Your task to perform on an android device: Go to Wikipedia Image 0: 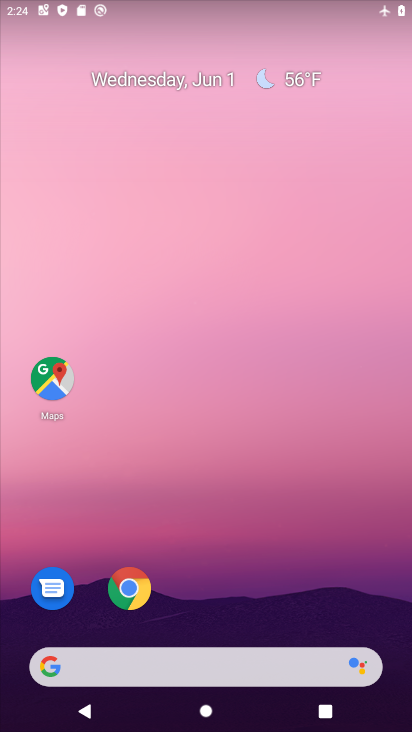
Step 0: click (133, 595)
Your task to perform on an android device: Go to Wikipedia Image 1: 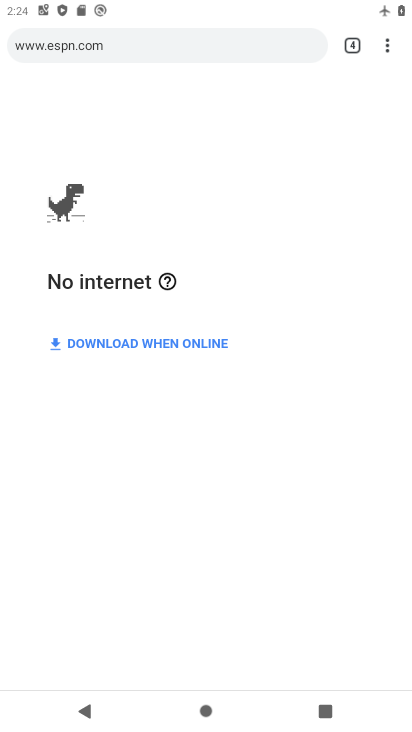
Step 1: click (376, 52)
Your task to perform on an android device: Go to Wikipedia Image 2: 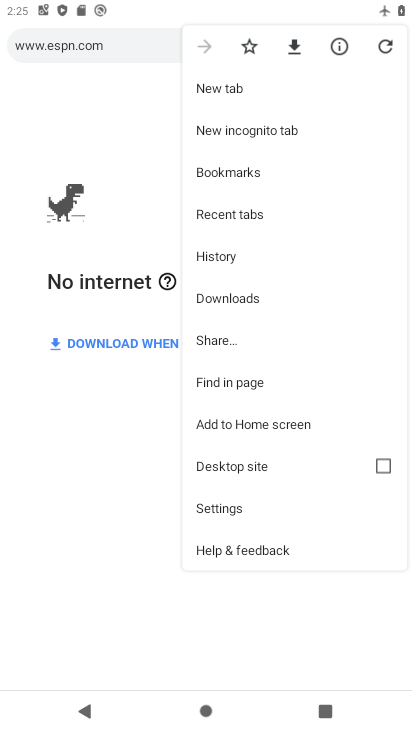
Step 2: click (244, 95)
Your task to perform on an android device: Go to Wikipedia Image 3: 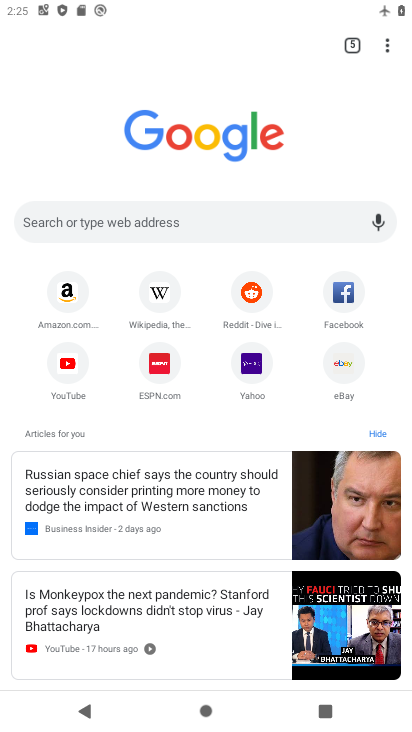
Step 3: click (144, 299)
Your task to perform on an android device: Go to Wikipedia Image 4: 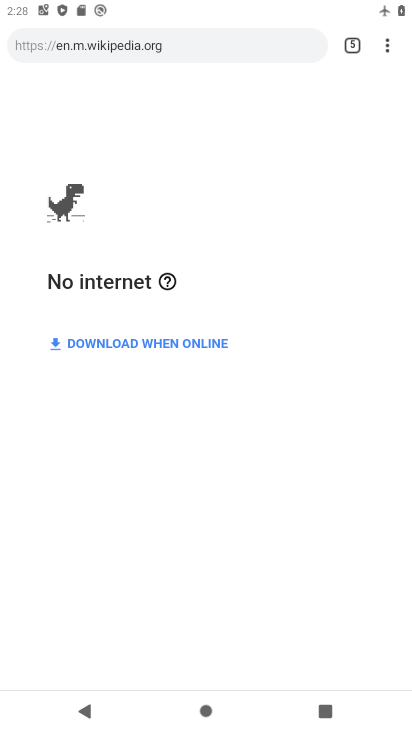
Step 4: task complete